Your task to perform on an android device: Go to location settings Image 0: 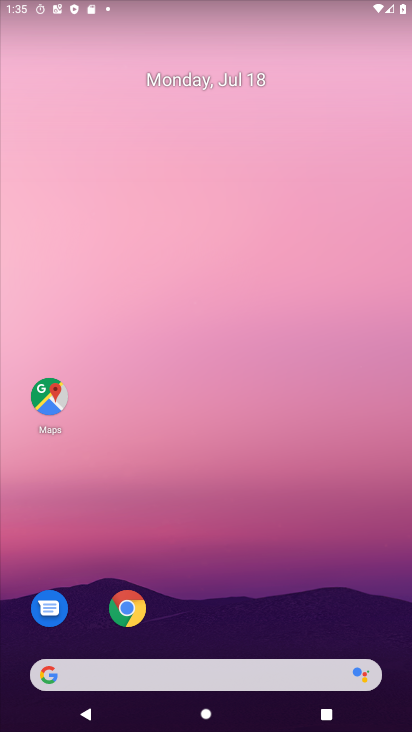
Step 0: drag from (260, 700) to (240, 137)
Your task to perform on an android device: Go to location settings Image 1: 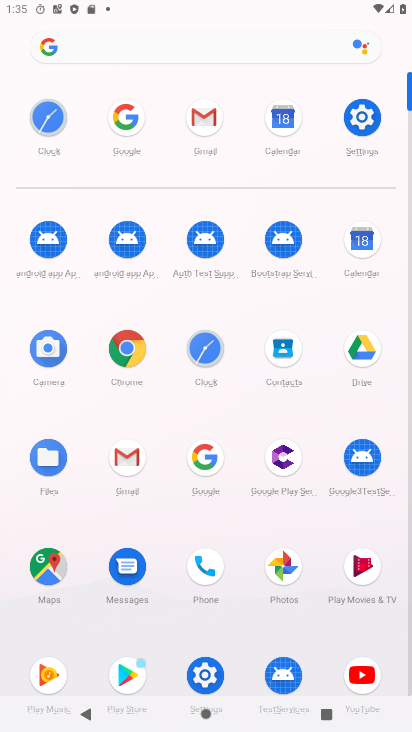
Step 1: click (359, 127)
Your task to perform on an android device: Go to location settings Image 2: 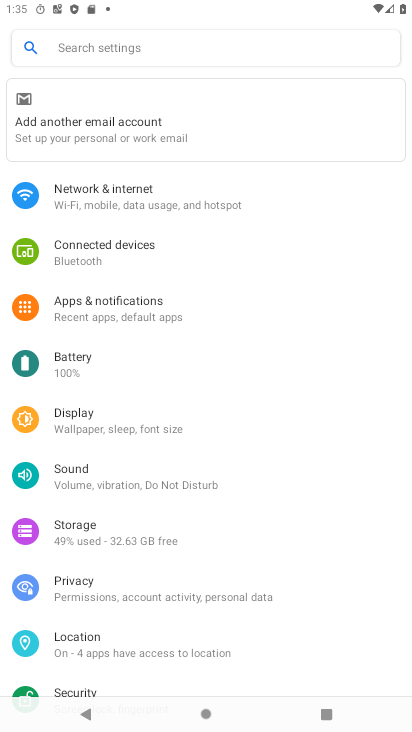
Step 2: click (73, 632)
Your task to perform on an android device: Go to location settings Image 3: 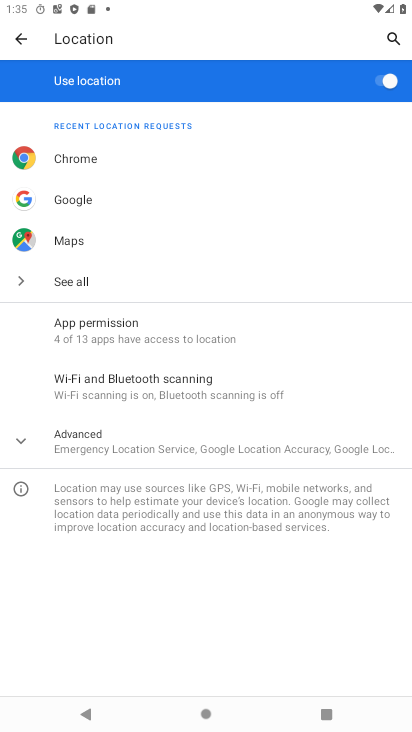
Step 3: task complete